Your task to perform on an android device: Open Yahoo.com Image 0: 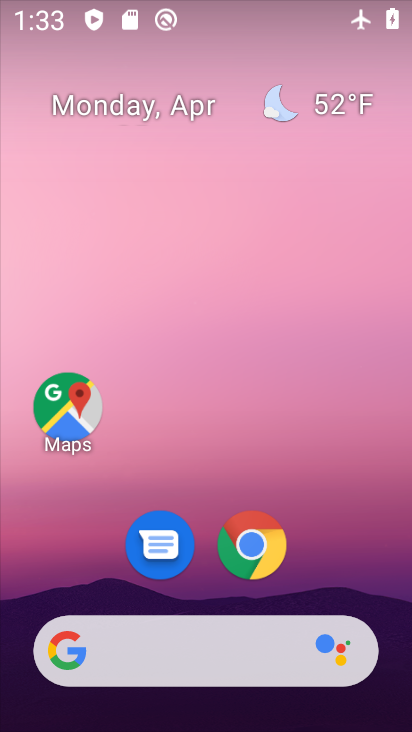
Step 0: click (253, 543)
Your task to perform on an android device: Open Yahoo.com Image 1: 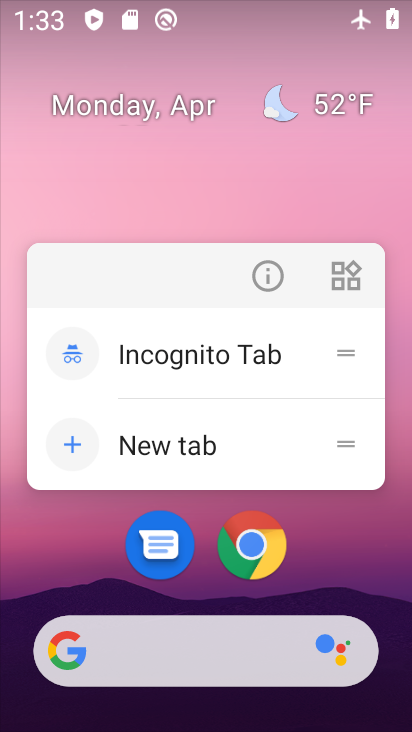
Step 1: click (254, 547)
Your task to perform on an android device: Open Yahoo.com Image 2: 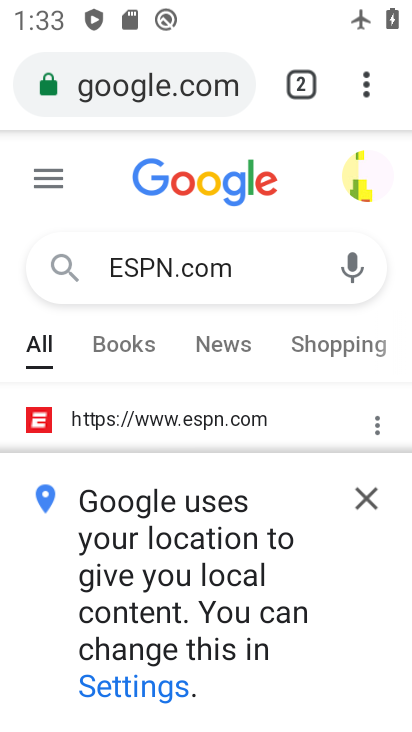
Step 2: click (273, 270)
Your task to perform on an android device: Open Yahoo.com Image 3: 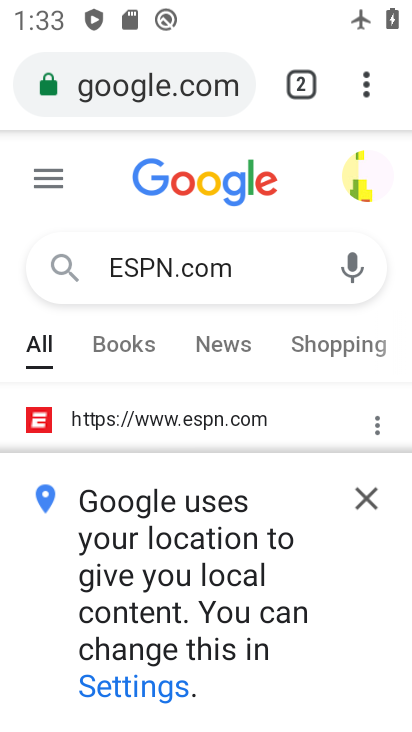
Step 3: click (273, 270)
Your task to perform on an android device: Open Yahoo.com Image 4: 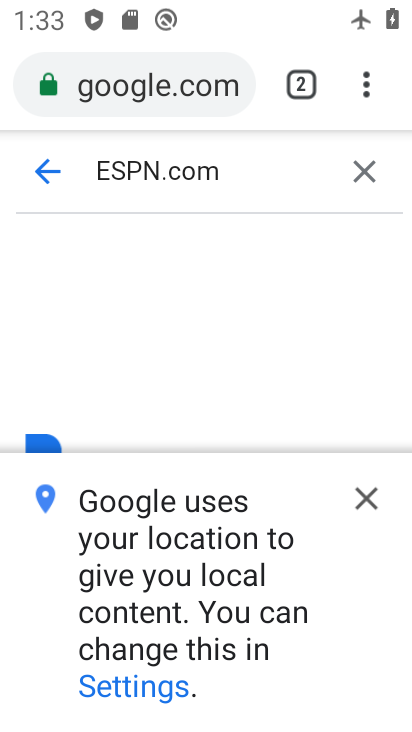
Step 4: click (190, 170)
Your task to perform on an android device: Open Yahoo.com Image 5: 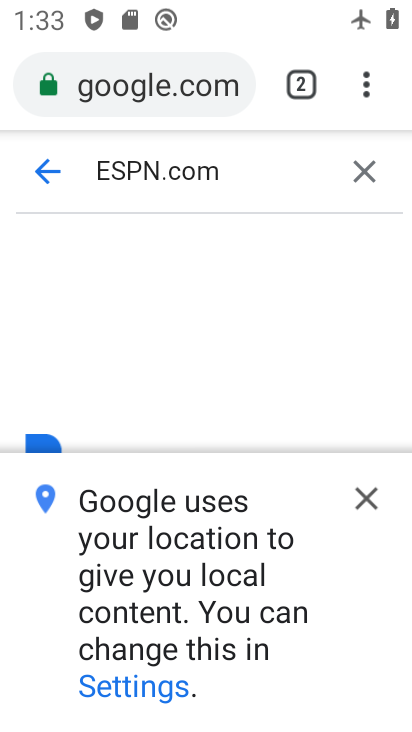
Step 5: click (190, 170)
Your task to perform on an android device: Open Yahoo.com Image 6: 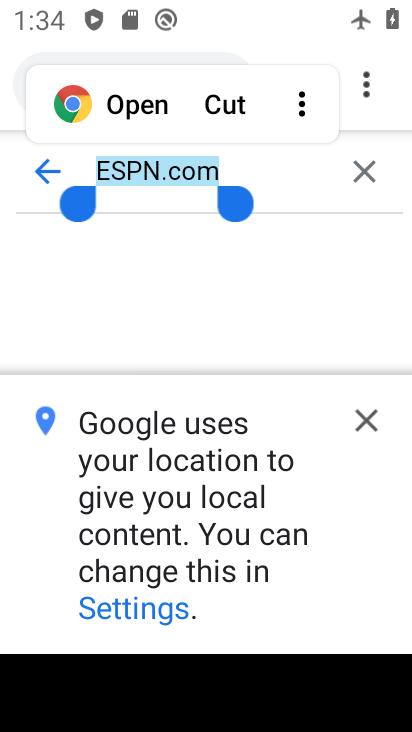
Step 6: click (222, 97)
Your task to perform on an android device: Open Yahoo.com Image 7: 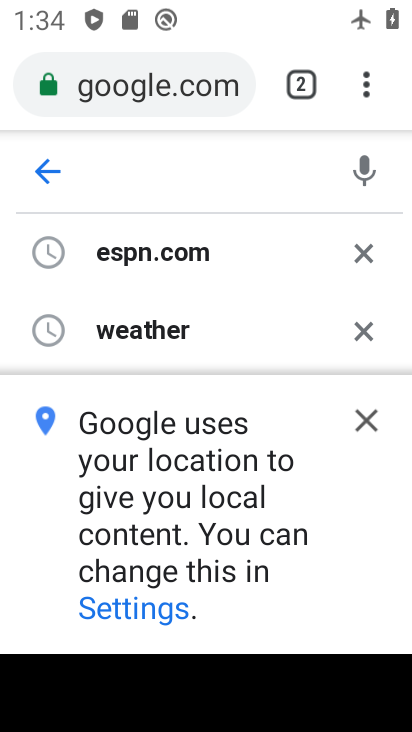
Step 7: type "Yahoo.com"
Your task to perform on an android device: Open Yahoo.com Image 8: 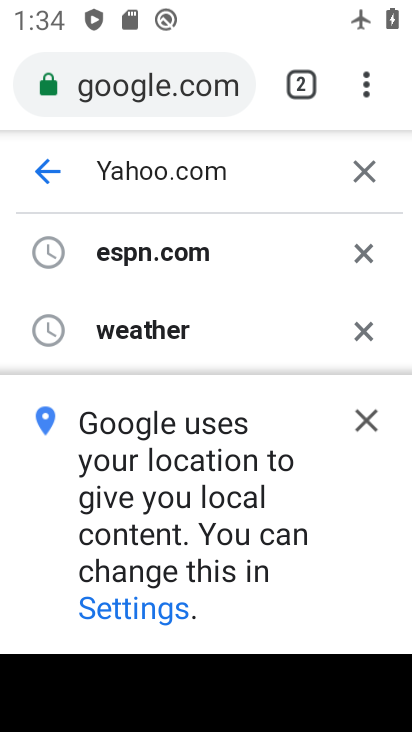
Step 8: click (181, 161)
Your task to perform on an android device: Open Yahoo.com Image 9: 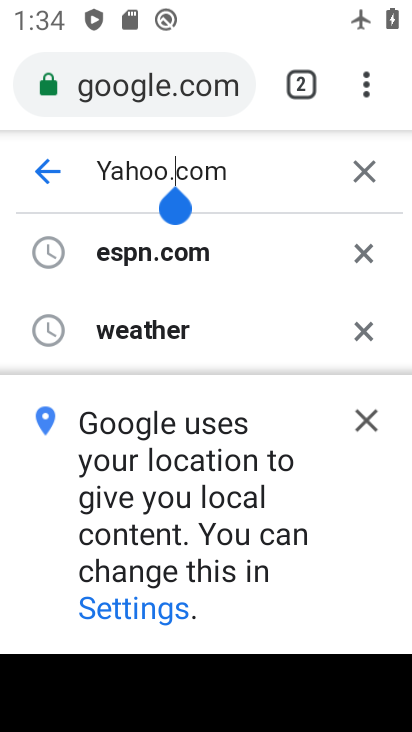
Step 9: click (181, 161)
Your task to perform on an android device: Open Yahoo.com Image 10: 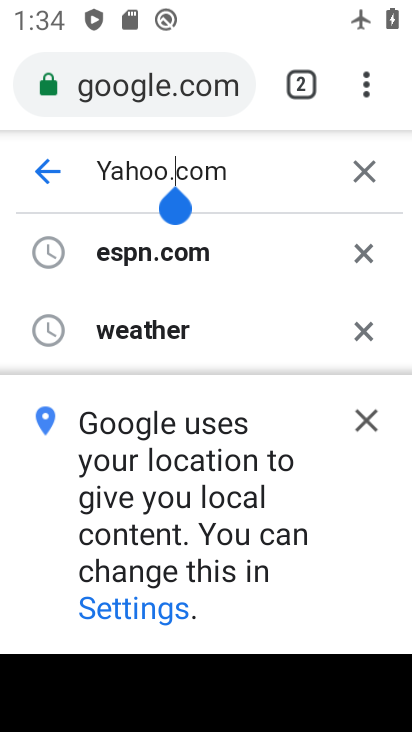
Step 10: click (51, 163)
Your task to perform on an android device: Open Yahoo.com Image 11: 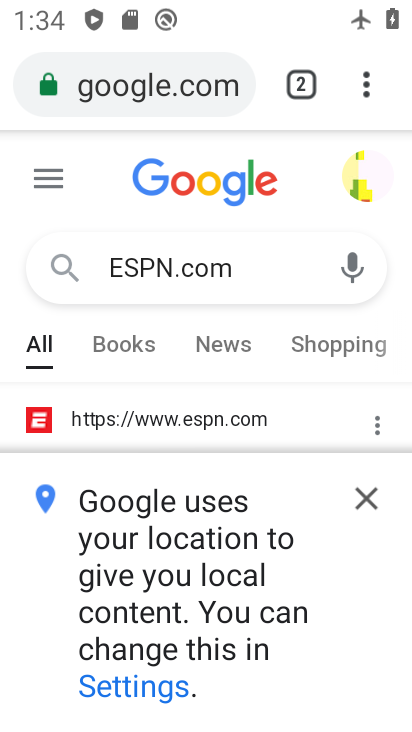
Step 11: task complete